Your task to perform on an android device: Open wifi settings Image 0: 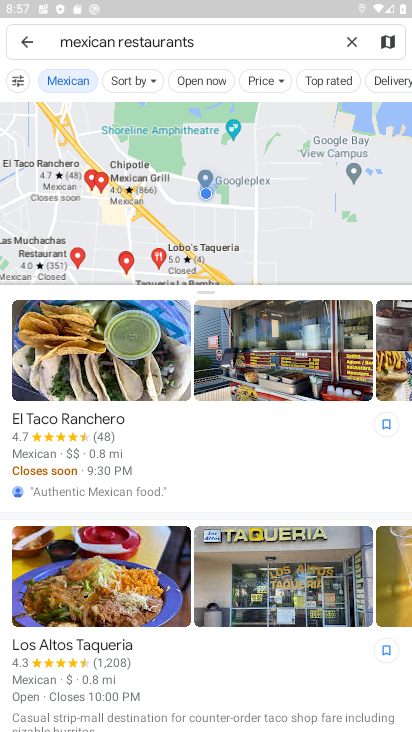
Step 0: press back button
Your task to perform on an android device: Open wifi settings Image 1: 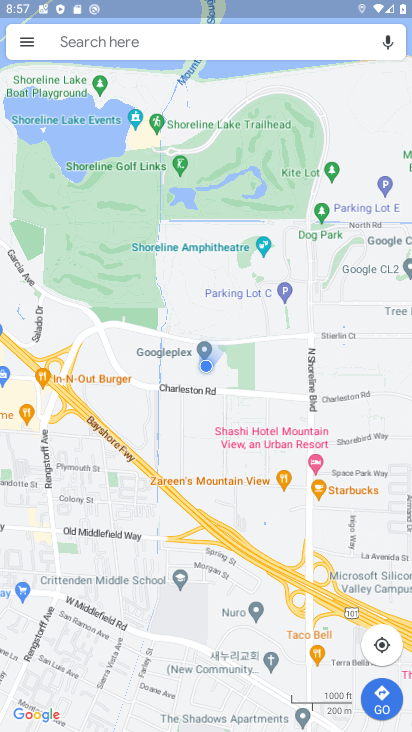
Step 1: press back button
Your task to perform on an android device: Open wifi settings Image 2: 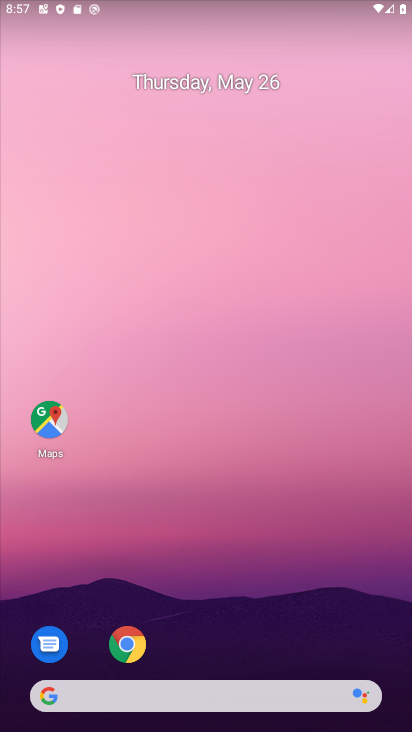
Step 2: drag from (143, 13) to (120, 476)
Your task to perform on an android device: Open wifi settings Image 3: 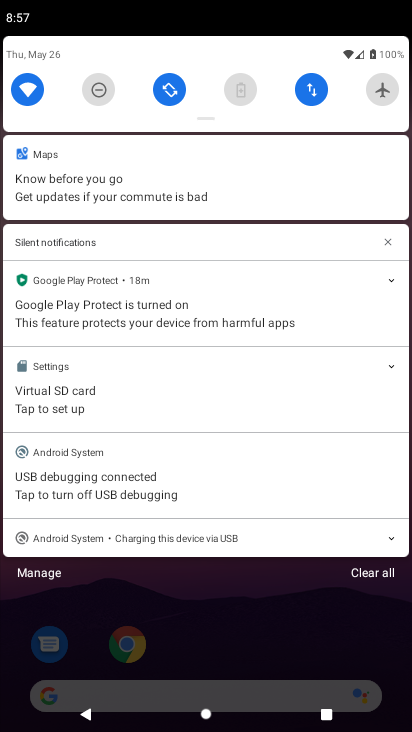
Step 3: click (15, 94)
Your task to perform on an android device: Open wifi settings Image 4: 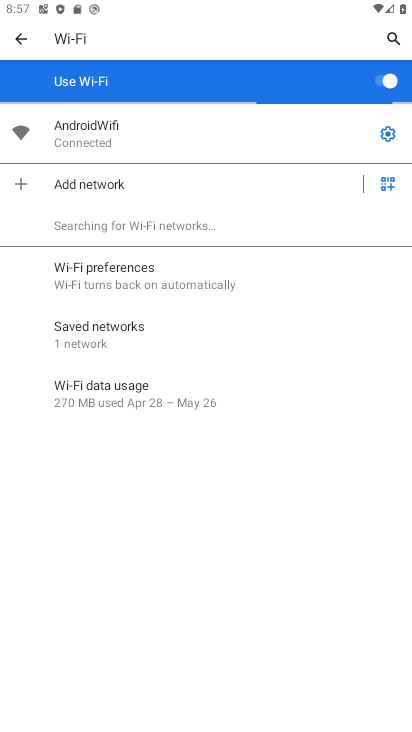
Step 4: task complete